Your task to perform on an android device: turn on airplane mode Image 0: 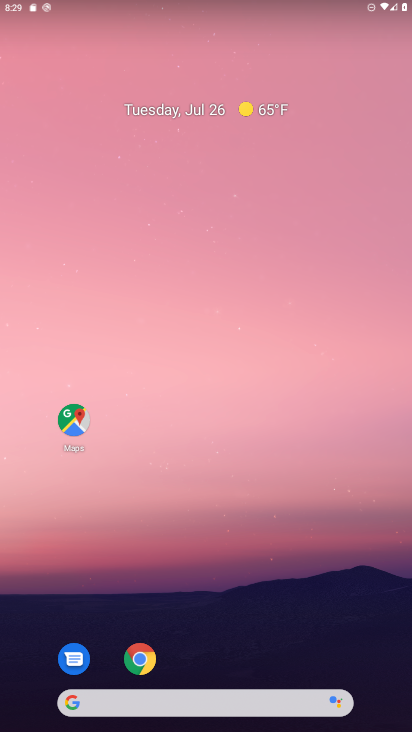
Step 0: drag from (181, 588) to (177, 98)
Your task to perform on an android device: turn on airplane mode Image 1: 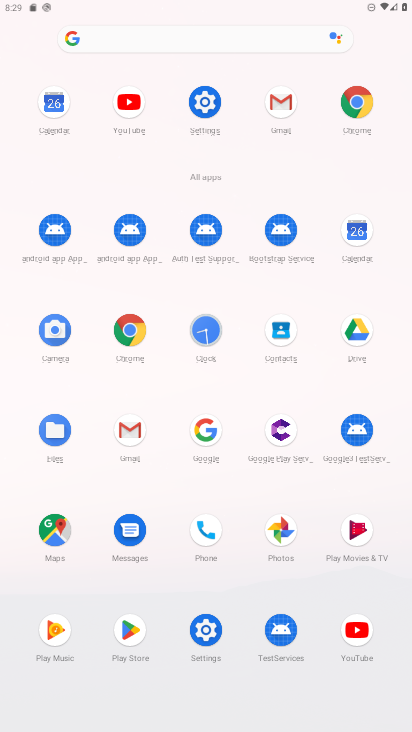
Step 1: click (206, 98)
Your task to perform on an android device: turn on airplane mode Image 2: 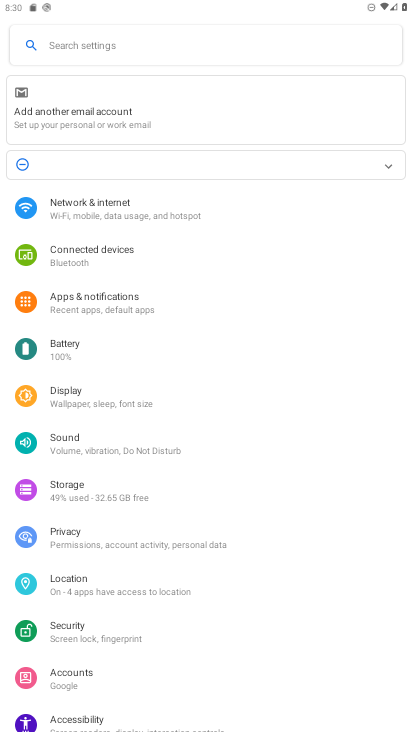
Step 2: click (102, 208)
Your task to perform on an android device: turn on airplane mode Image 3: 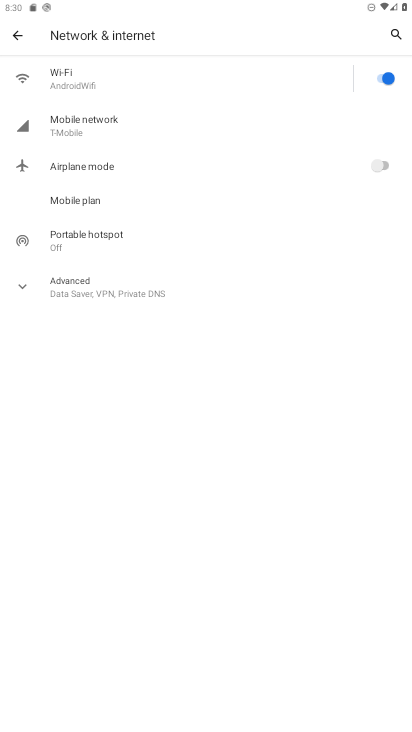
Step 3: click (389, 170)
Your task to perform on an android device: turn on airplane mode Image 4: 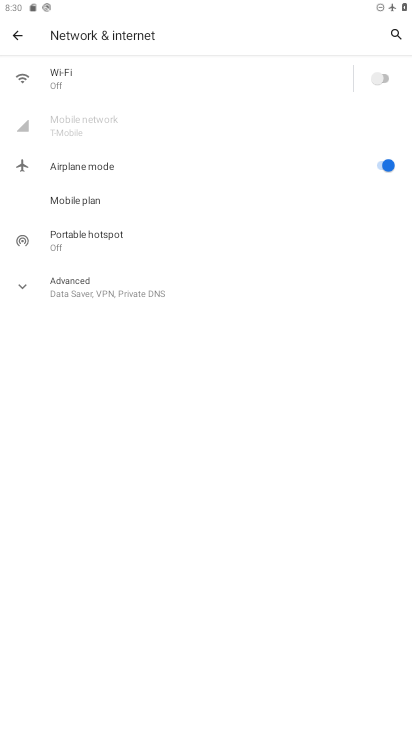
Step 4: task complete